Your task to perform on an android device: refresh tabs in the chrome app Image 0: 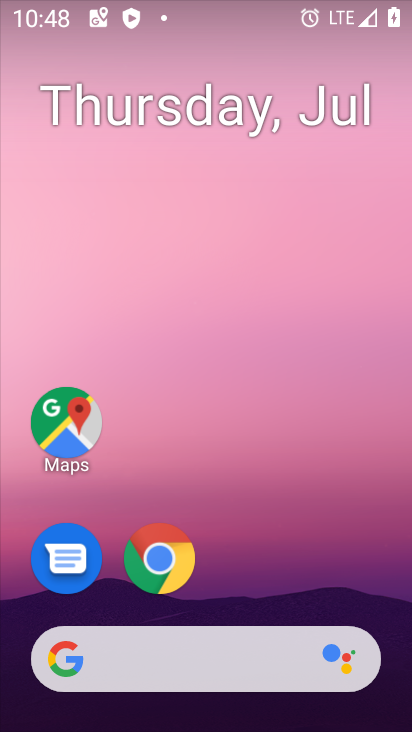
Step 0: drag from (329, 579) to (367, 80)
Your task to perform on an android device: refresh tabs in the chrome app Image 1: 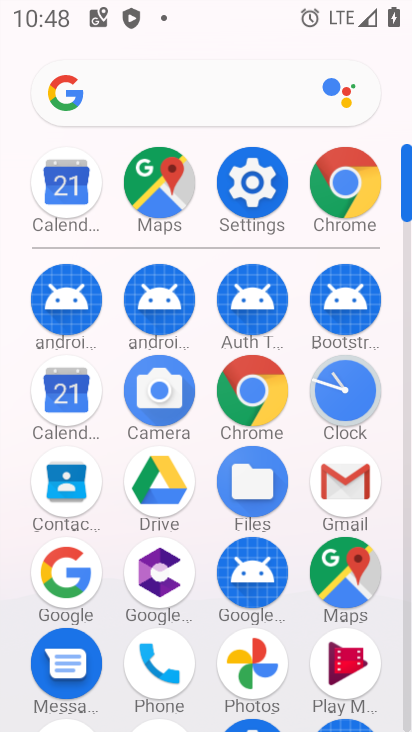
Step 1: click (266, 389)
Your task to perform on an android device: refresh tabs in the chrome app Image 2: 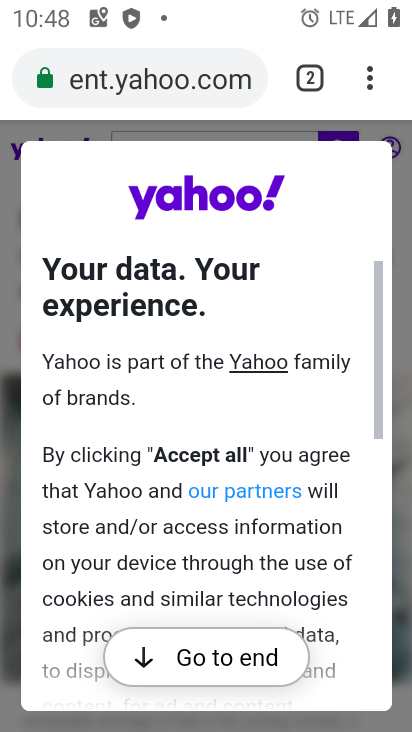
Step 2: click (368, 91)
Your task to perform on an android device: refresh tabs in the chrome app Image 3: 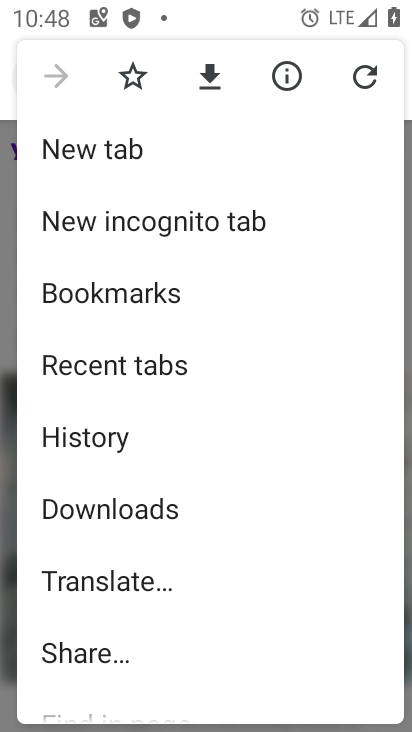
Step 3: click (365, 80)
Your task to perform on an android device: refresh tabs in the chrome app Image 4: 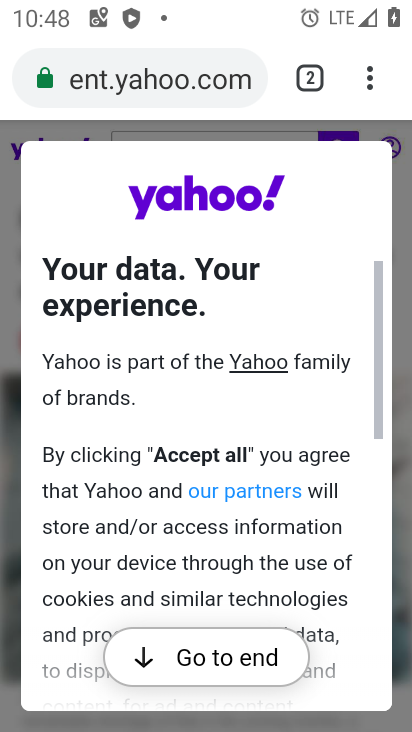
Step 4: task complete